Your task to perform on an android device: Play the last video I watched on Youtube Image 0: 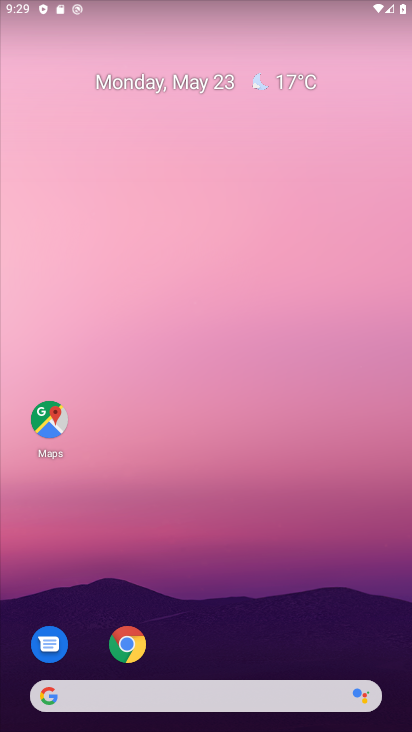
Step 0: drag from (203, 638) to (336, 207)
Your task to perform on an android device: Play the last video I watched on Youtube Image 1: 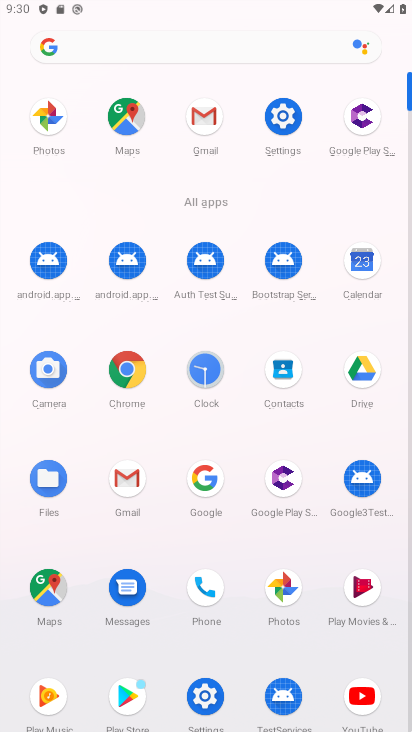
Step 1: click (355, 697)
Your task to perform on an android device: Play the last video I watched on Youtube Image 2: 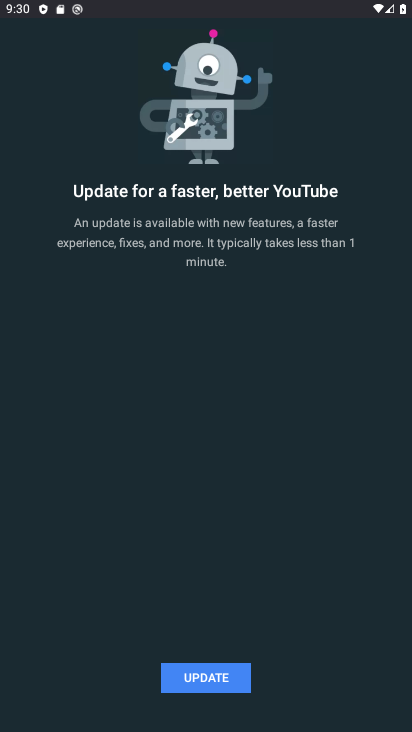
Step 2: click (206, 687)
Your task to perform on an android device: Play the last video I watched on Youtube Image 3: 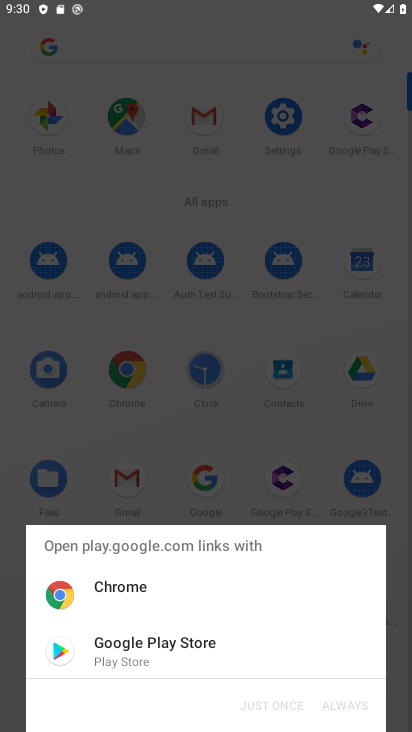
Step 3: click (252, 653)
Your task to perform on an android device: Play the last video I watched on Youtube Image 4: 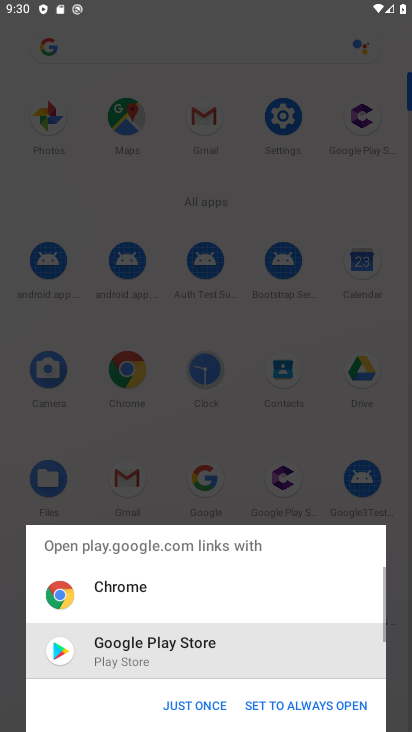
Step 4: click (209, 708)
Your task to perform on an android device: Play the last video I watched on Youtube Image 5: 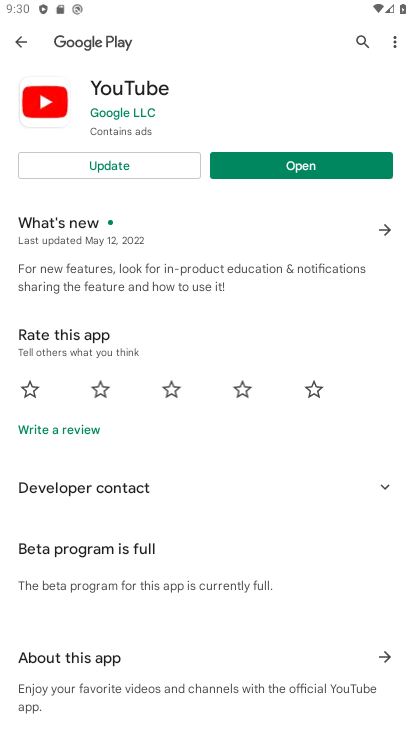
Step 5: click (113, 175)
Your task to perform on an android device: Play the last video I watched on Youtube Image 6: 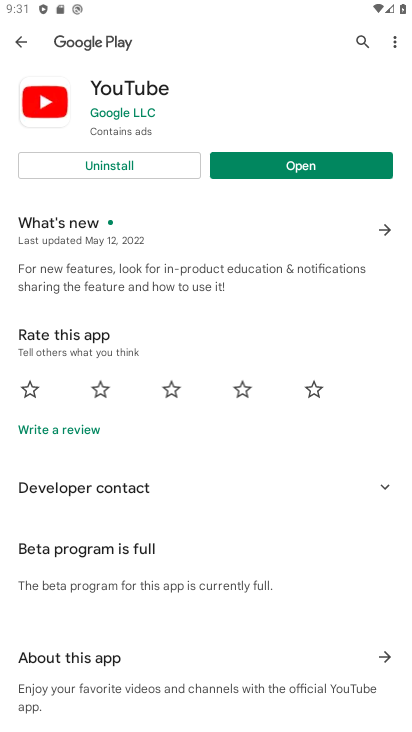
Step 6: click (345, 163)
Your task to perform on an android device: Play the last video I watched on Youtube Image 7: 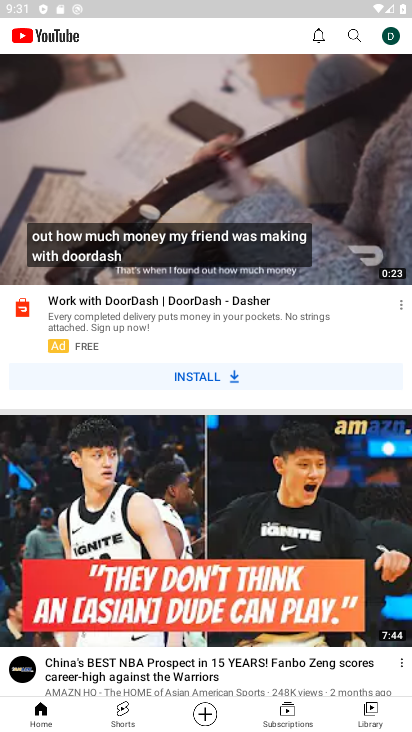
Step 7: click (377, 710)
Your task to perform on an android device: Play the last video I watched on Youtube Image 8: 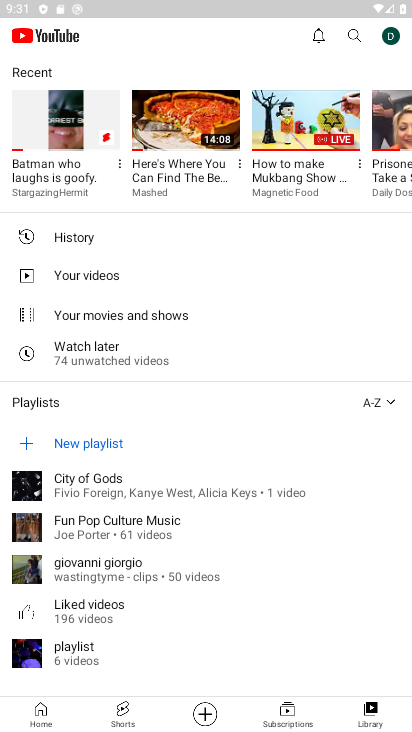
Step 8: click (48, 128)
Your task to perform on an android device: Play the last video I watched on Youtube Image 9: 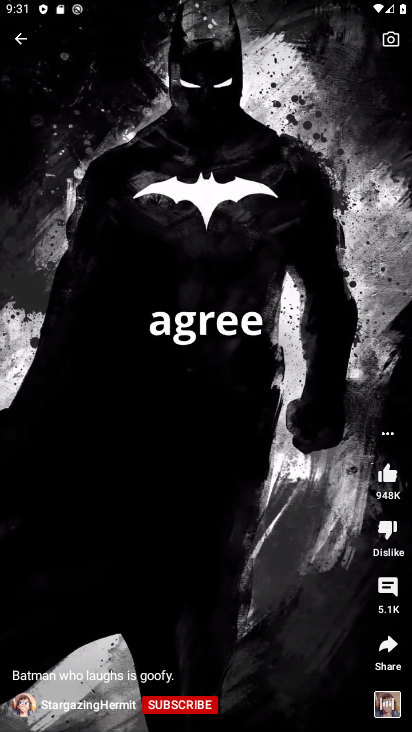
Step 9: task complete